Your task to perform on an android device: find which apps use the phone's location Image 0: 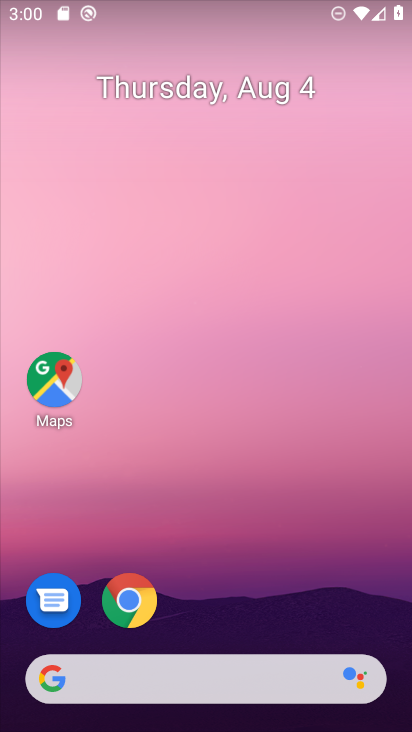
Step 0: drag from (106, 676) to (276, 139)
Your task to perform on an android device: find which apps use the phone's location Image 1: 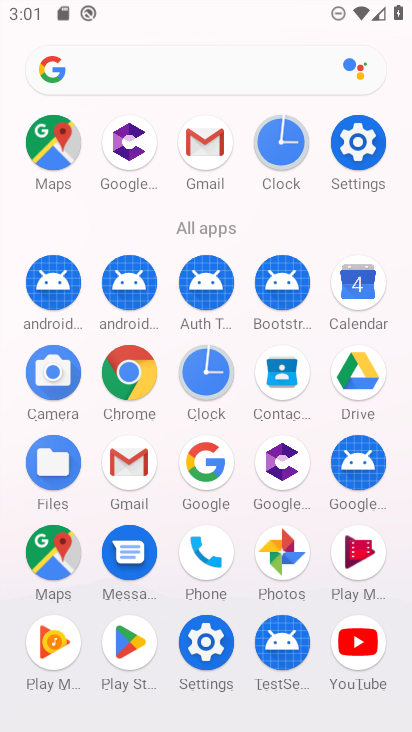
Step 1: click (355, 149)
Your task to perform on an android device: find which apps use the phone's location Image 2: 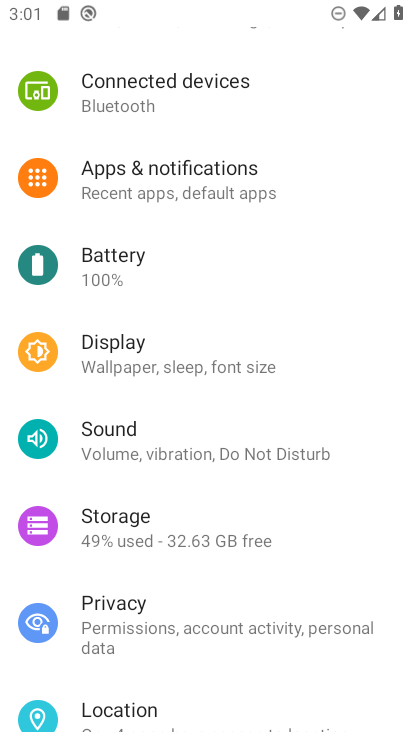
Step 2: drag from (202, 614) to (301, 196)
Your task to perform on an android device: find which apps use the phone's location Image 3: 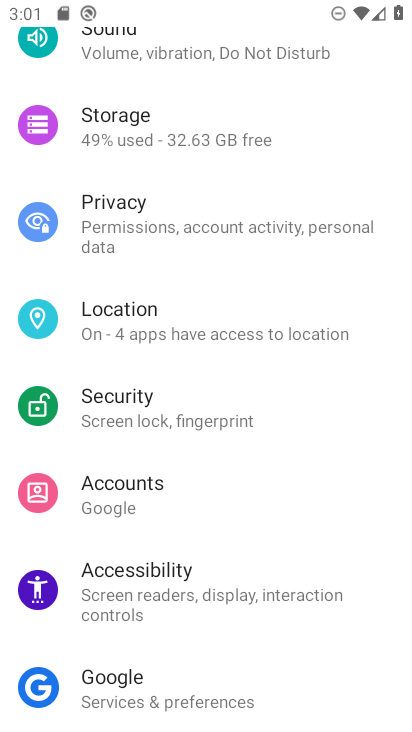
Step 3: click (132, 315)
Your task to perform on an android device: find which apps use the phone's location Image 4: 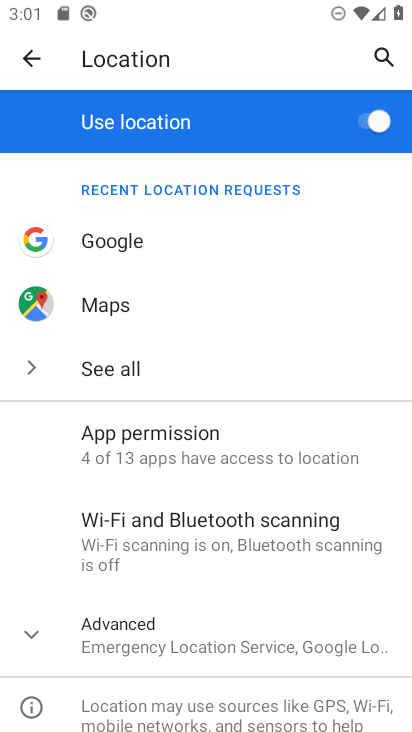
Step 4: click (155, 424)
Your task to perform on an android device: find which apps use the phone's location Image 5: 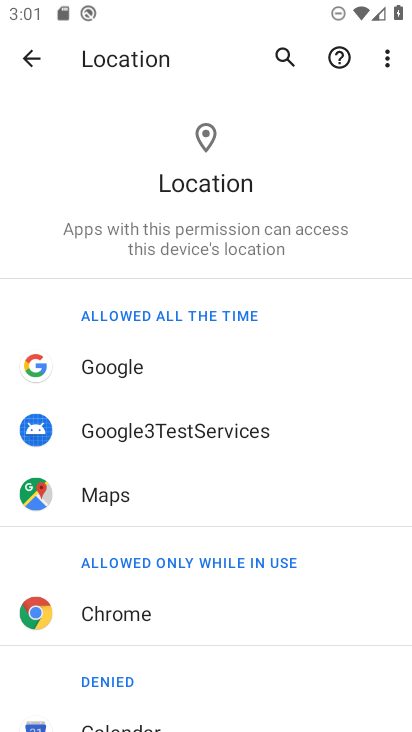
Step 5: drag from (210, 642) to (238, 72)
Your task to perform on an android device: find which apps use the phone's location Image 6: 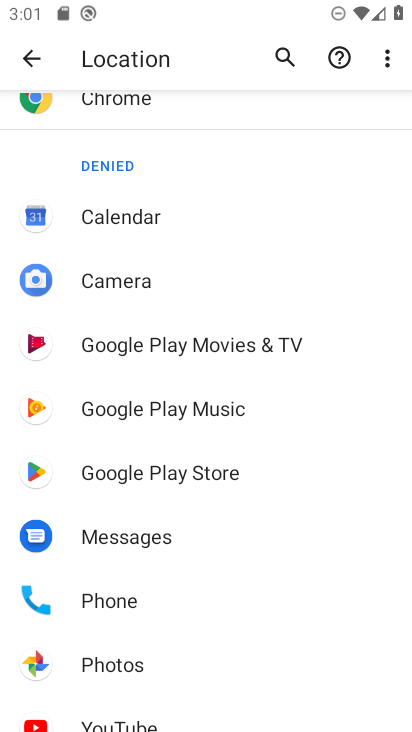
Step 6: click (127, 599)
Your task to perform on an android device: find which apps use the phone's location Image 7: 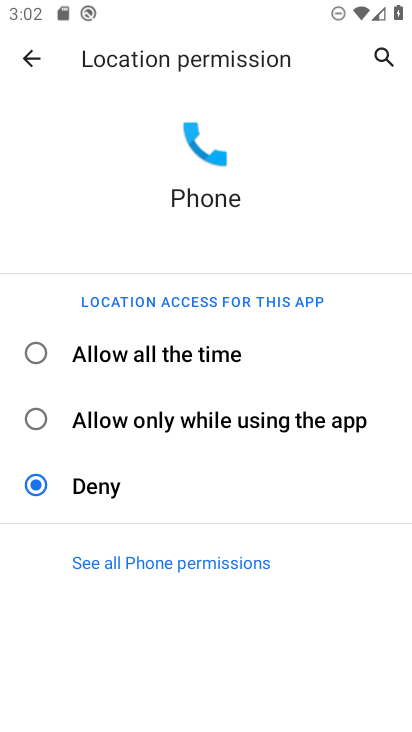
Step 7: task complete